Your task to perform on an android device: Go to battery settings Image 0: 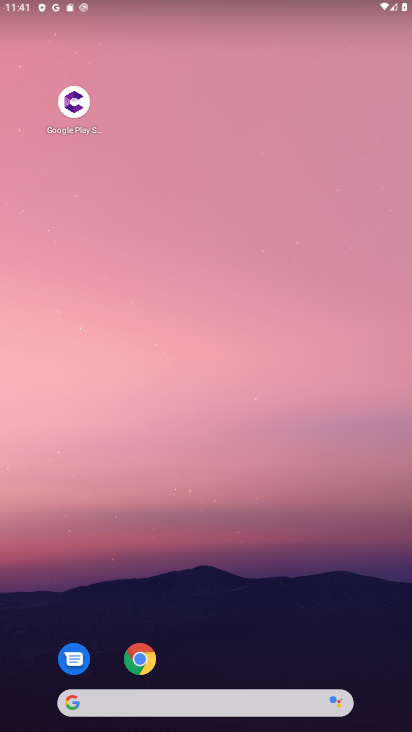
Step 0: drag from (237, 8) to (265, 552)
Your task to perform on an android device: Go to battery settings Image 1: 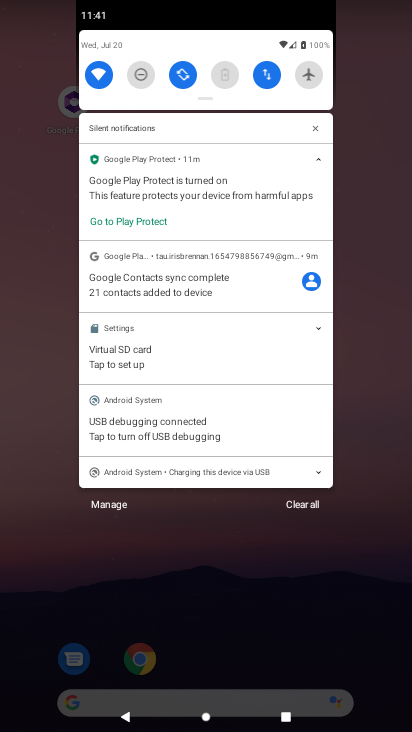
Step 1: click (230, 81)
Your task to perform on an android device: Go to battery settings Image 2: 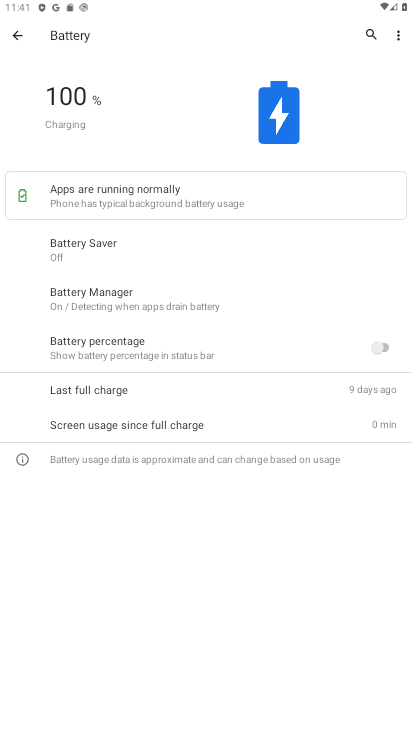
Step 2: task complete